Your task to perform on an android device: snooze an email in the gmail app Image 0: 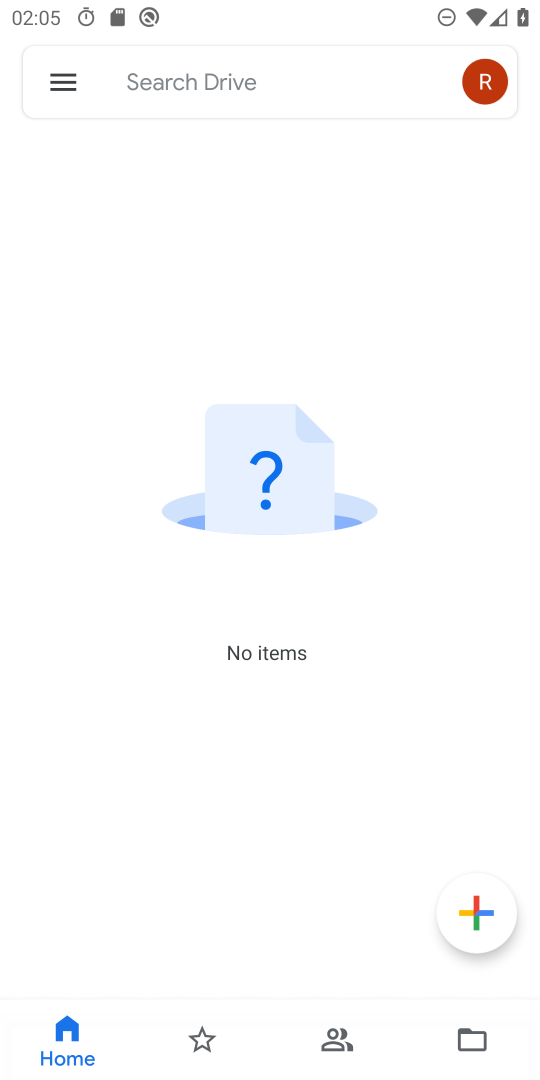
Step 0: press home button
Your task to perform on an android device: snooze an email in the gmail app Image 1: 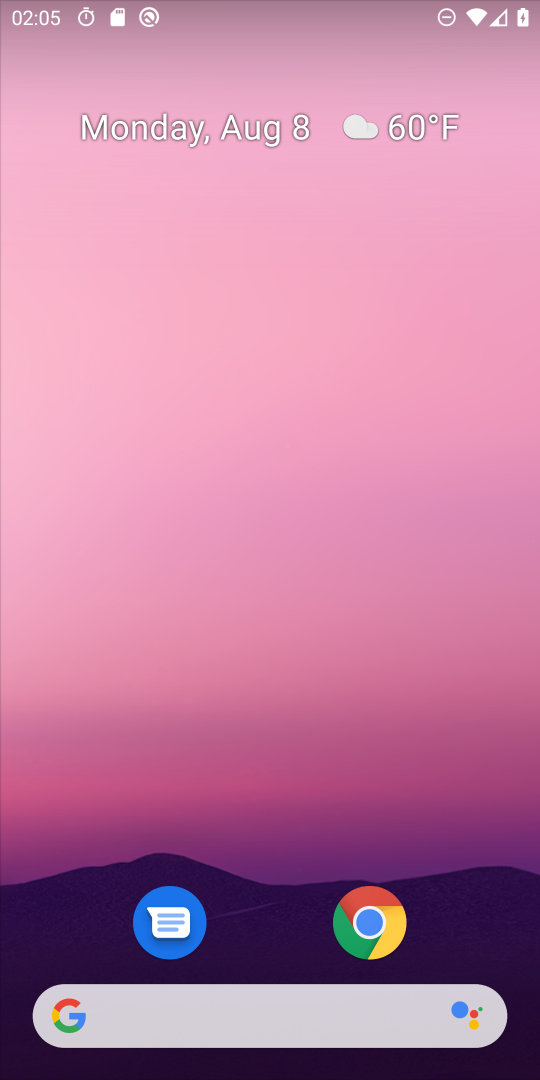
Step 1: drag from (442, 876) to (319, 169)
Your task to perform on an android device: snooze an email in the gmail app Image 2: 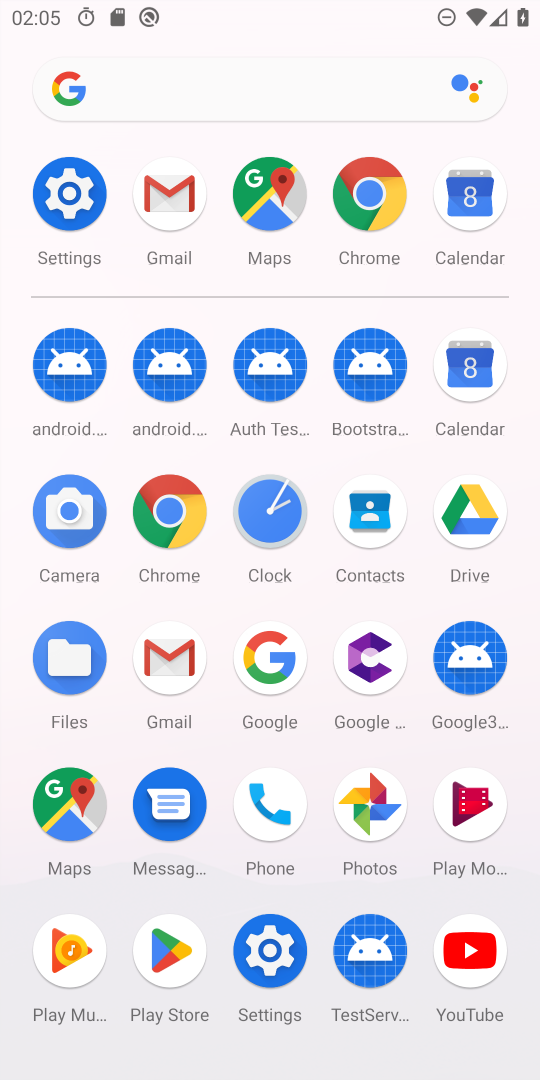
Step 2: click (191, 663)
Your task to perform on an android device: snooze an email in the gmail app Image 3: 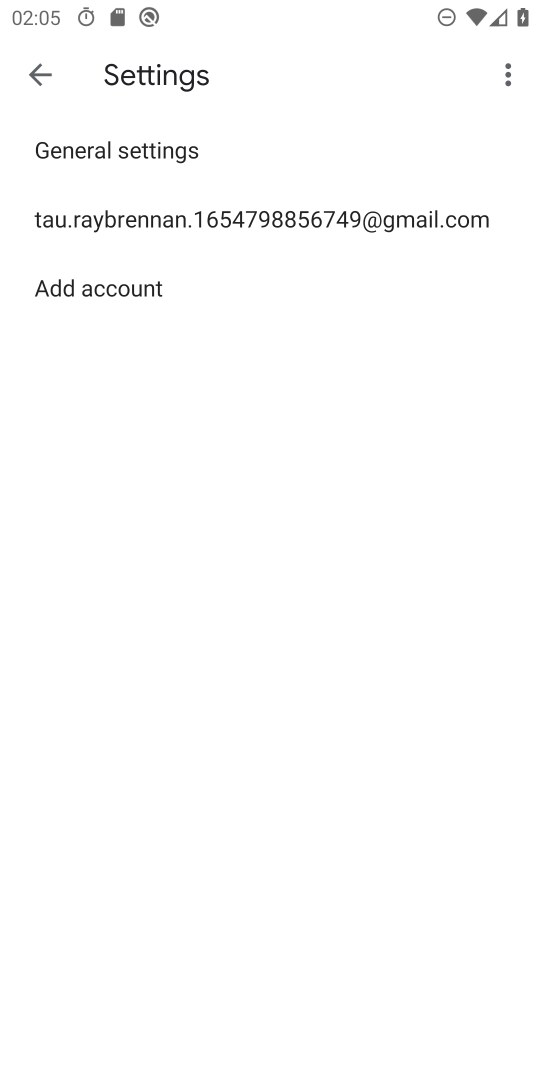
Step 3: press back button
Your task to perform on an android device: snooze an email in the gmail app Image 4: 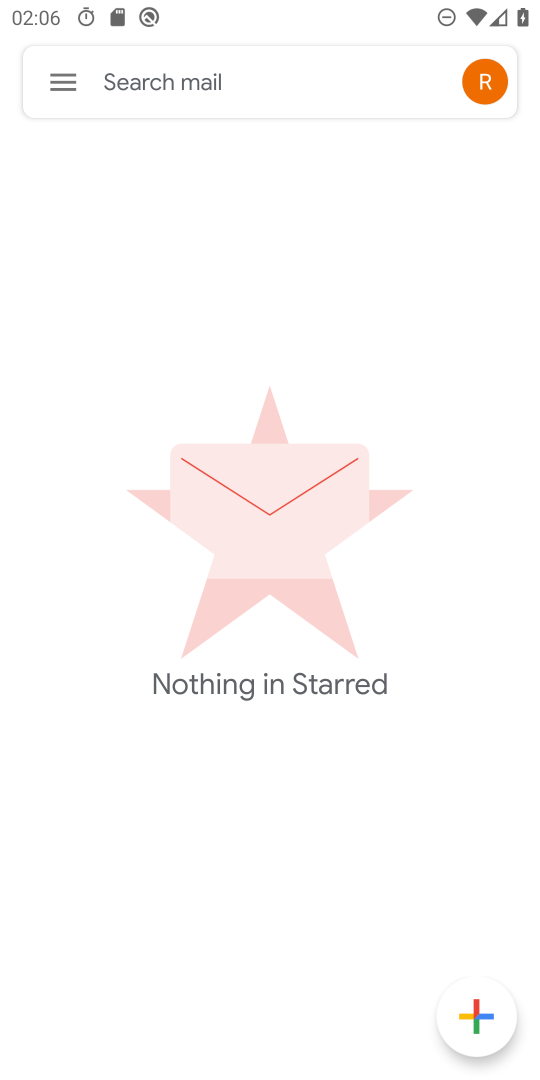
Step 4: click (76, 65)
Your task to perform on an android device: snooze an email in the gmail app Image 5: 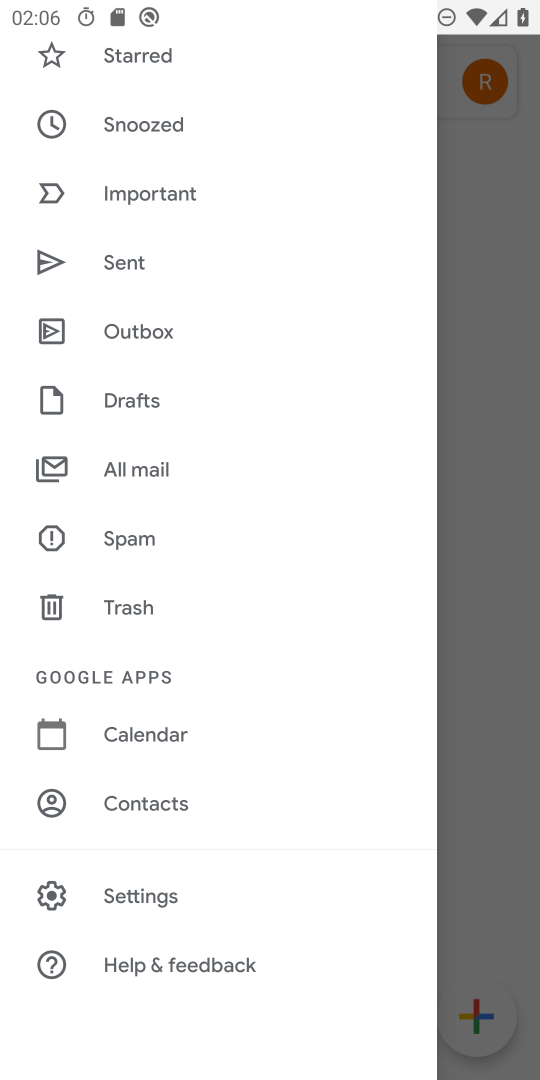
Step 5: click (124, 452)
Your task to perform on an android device: snooze an email in the gmail app Image 6: 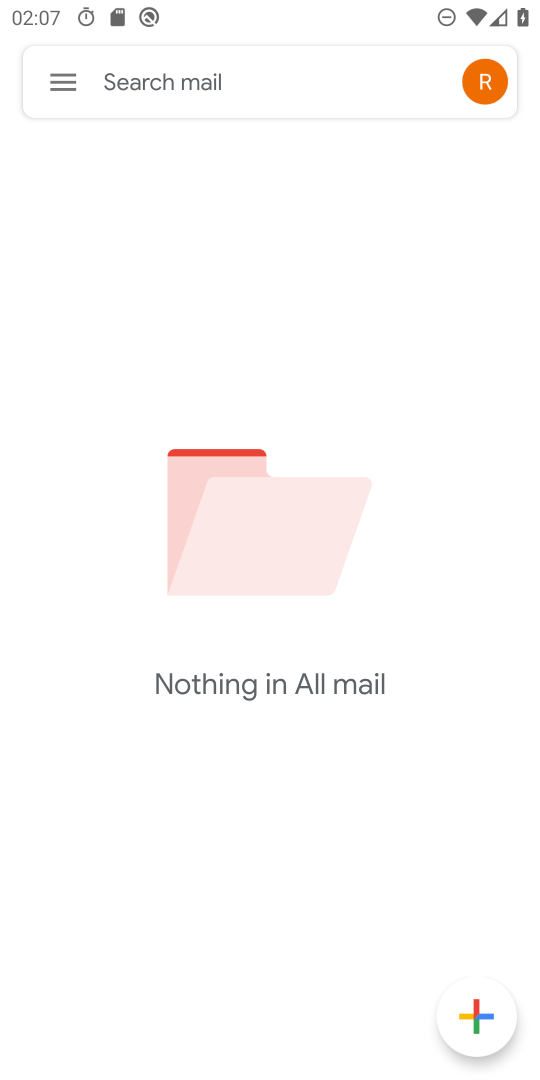
Step 6: task complete